Your task to perform on an android device: show emergency info Image 0: 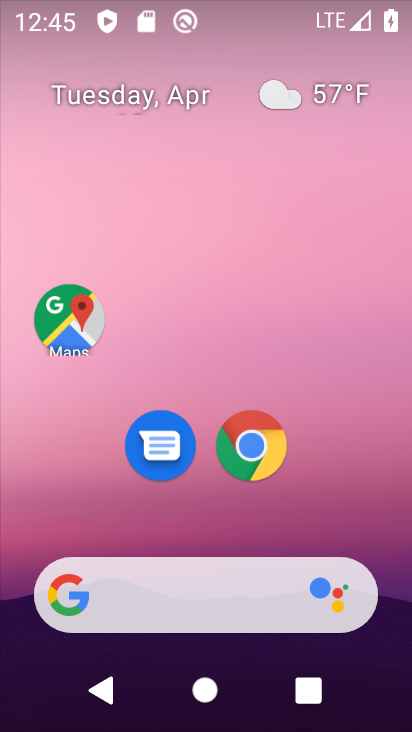
Step 0: drag from (354, 492) to (271, 45)
Your task to perform on an android device: show emergency info Image 1: 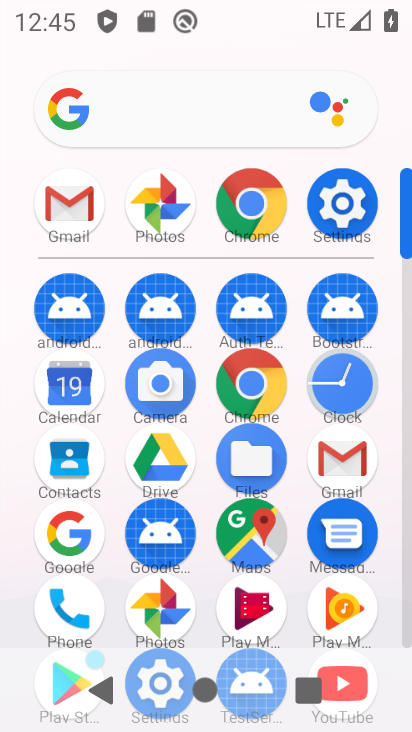
Step 1: click (336, 202)
Your task to perform on an android device: show emergency info Image 2: 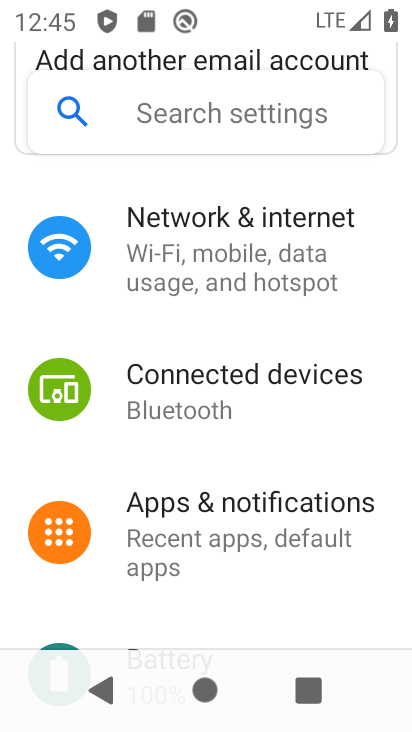
Step 2: drag from (275, 469) to (285, 122)
Your task to perform on an android device: show emergency info Image 3: 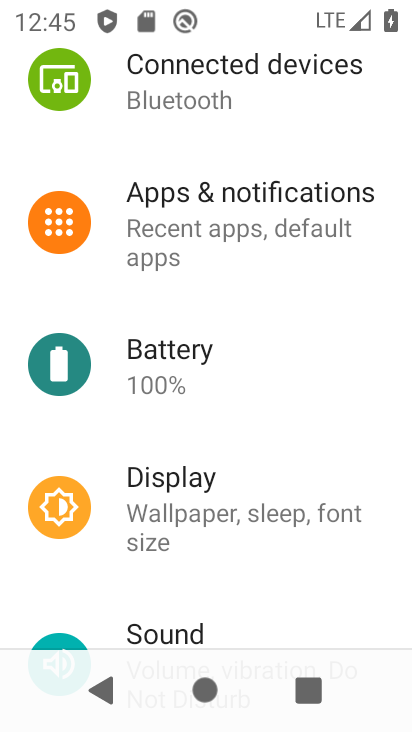
Step 3: drag from (273, 489) to (276, 137)
Your task to perform on an android device: show emergency info Image 4: 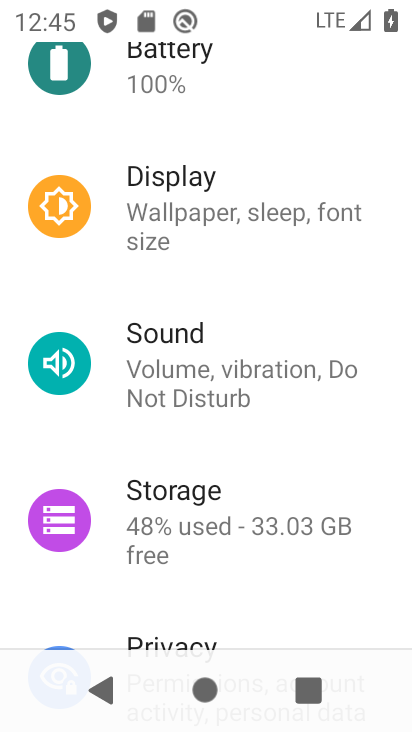
Step 4: drag from (239, 478) to (256, 157)
Your task to perform on an android device: show emergency info Image 5: 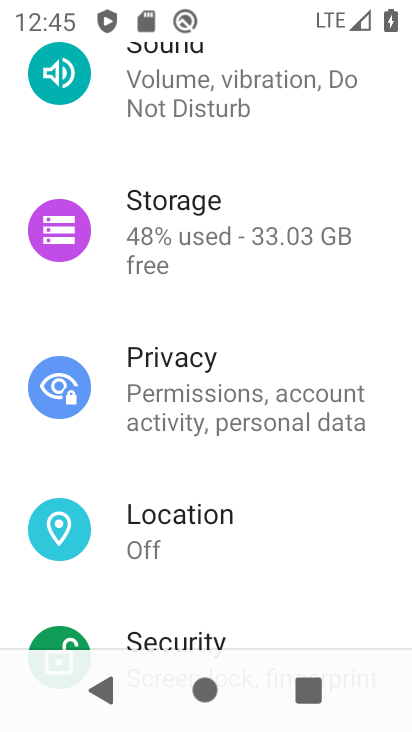
Step 5: drag from (278, 527) to (315, 156)
Your task to perform on an android device: show emergency info Image 6: 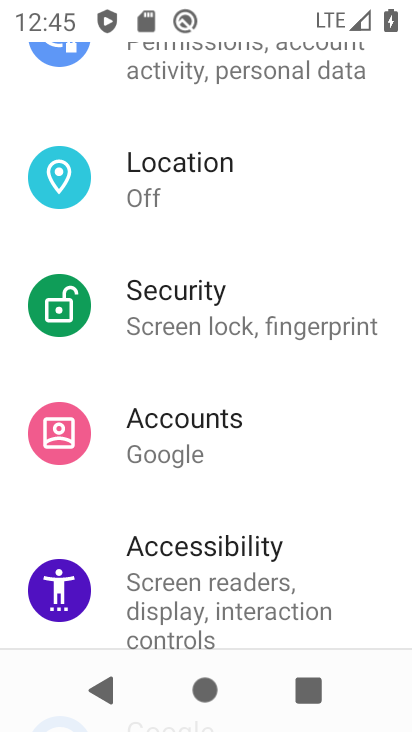
Step 6: drag from (289, 499) to (281, 143)
Your task to perform on an android device: show emergency info Image 7: 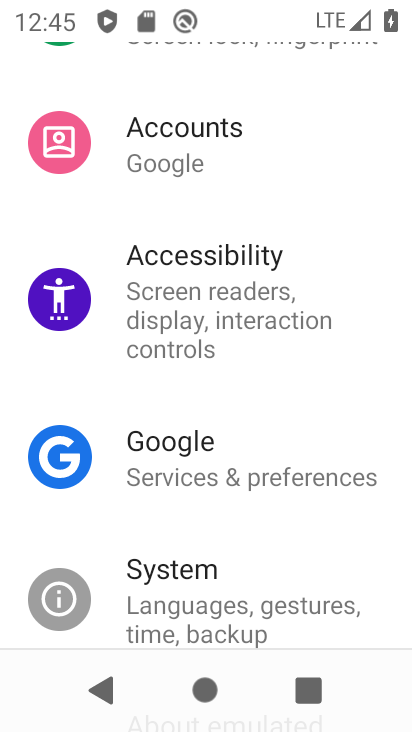
Step 7: drag from (272, 548) to (262, 128)
Your task to perform on an android device: show emergency info Image 8: 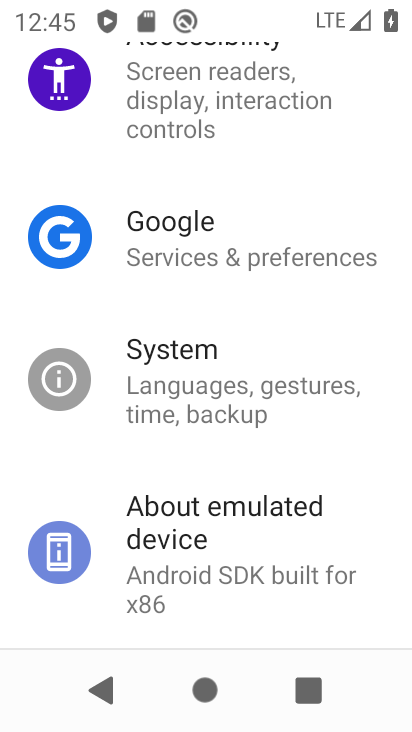
Step 8: click (238, 582)
Your task to perform on an android device: show emergency info Image 9: 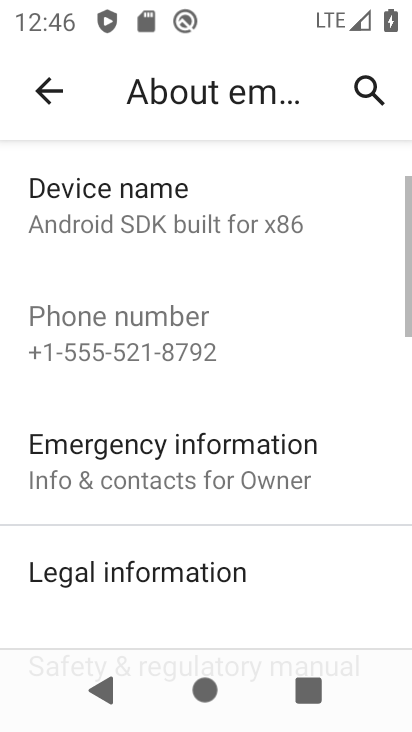
Step 9: drag from (295, 500) to (298, 166)
Your task to perform on an android device: show emergency info Image 10: 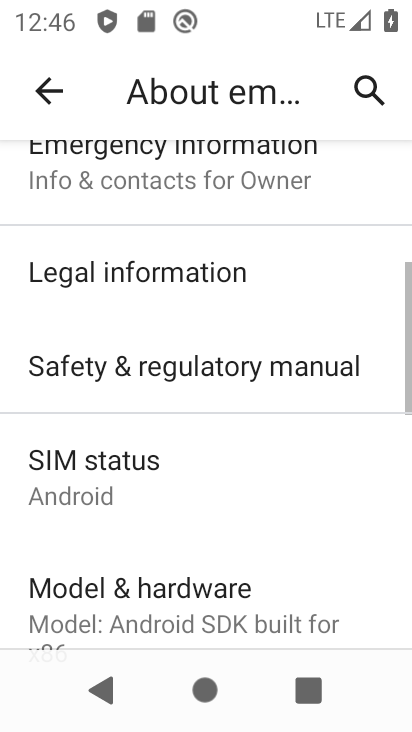
Step 10: drag from (237, 532) to (270, 591)
Your task to perform on an android device: show emergency info Image 11: 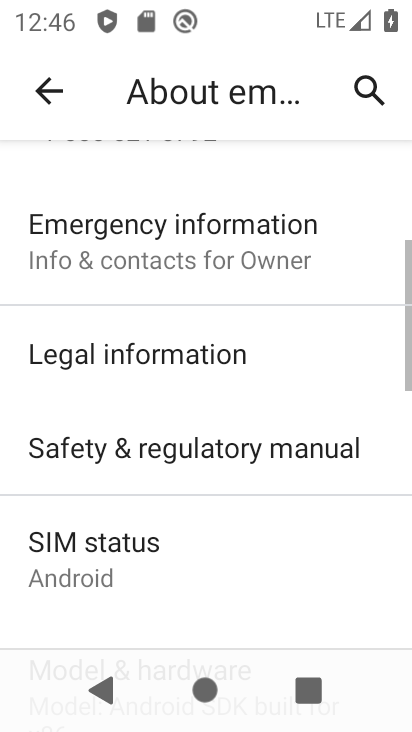
Step 11: click (264, 240)
Your task to perform on an android device: show emergency info Image 12: 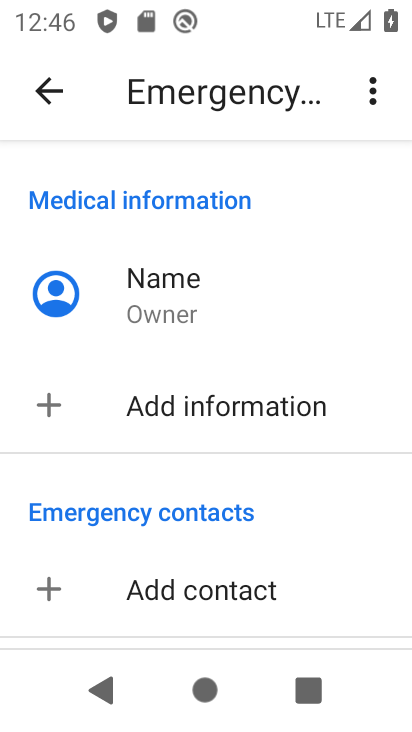
Step 12: task complete